Your task to perform on an android device: What is the news today? Image 0: 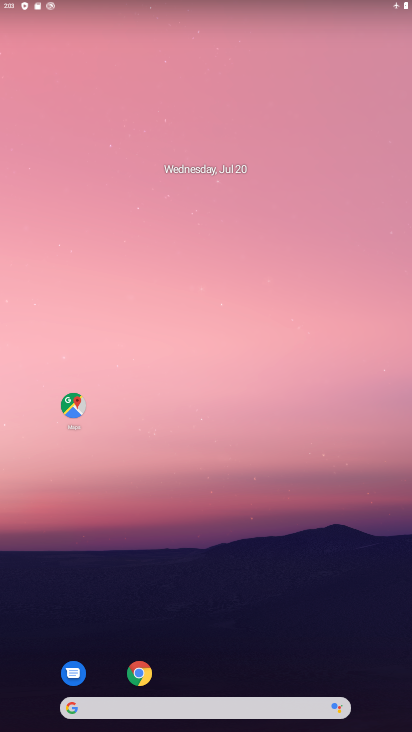
Step 0: drag from (10, 320) to (375, 326)
Your task to perform on an android device: What is the news today? Image 1: 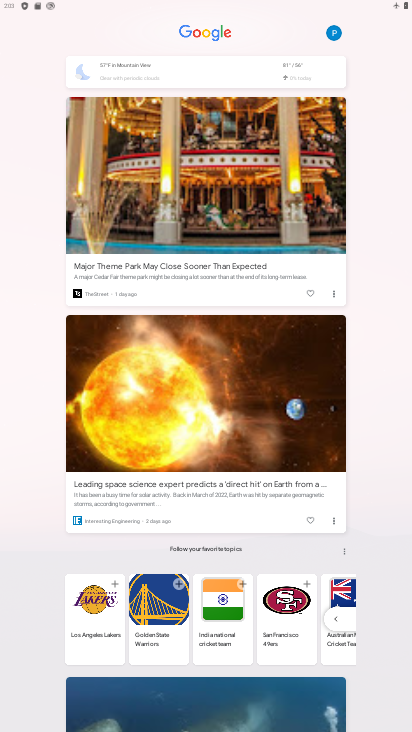
Step 1: task complete